Your task to perform on an android device: Open Chrome and go to settings Image 0: 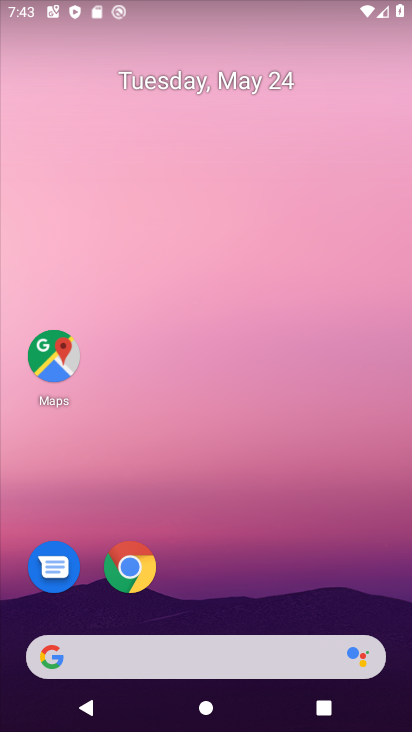
Step 0: click (133, 568)
Your task to perform on an android device: Open Chrome and go to settings Image 1: 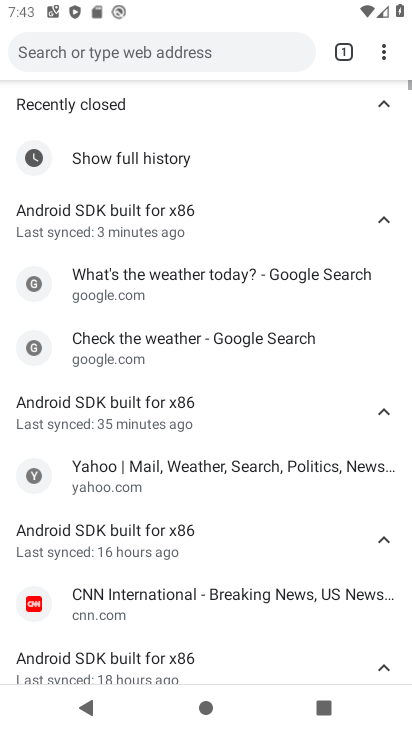
Step 1: click (390, 48)
Your task to perform on an android device: Open Chrome and go to settings Image 2: 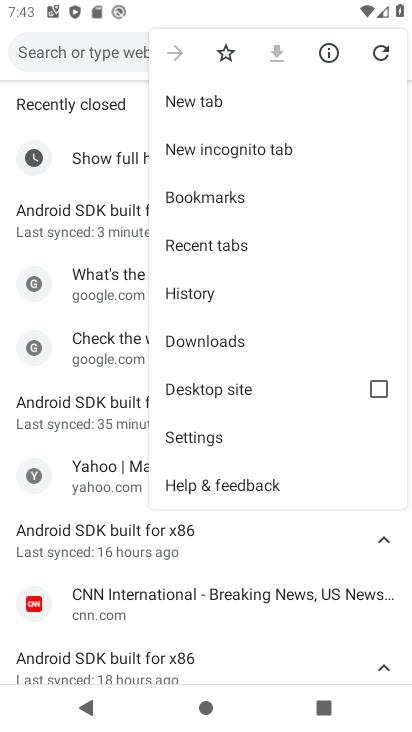
Step 2: click (206, 427)
Your task to perform on an android device: Open Chrome and go to settings Image 3: 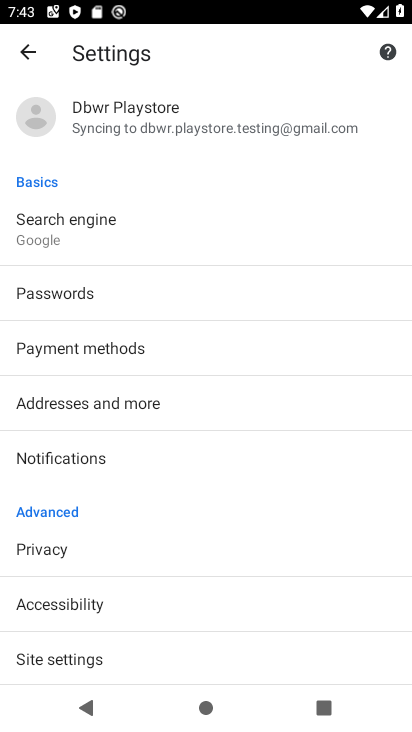
Step 3: task complete